Your task to perform on an android device: Find coffee shops on Maps Image 0: 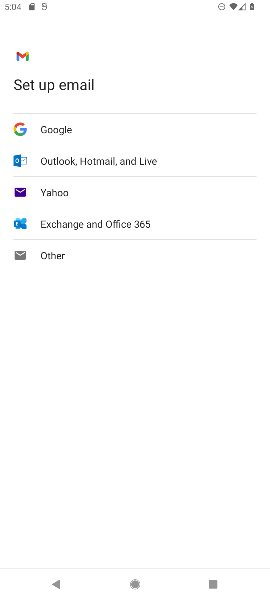
Step 0: press back button
Your task to perform on an android device: Find coffee shops on Maps Image 1: 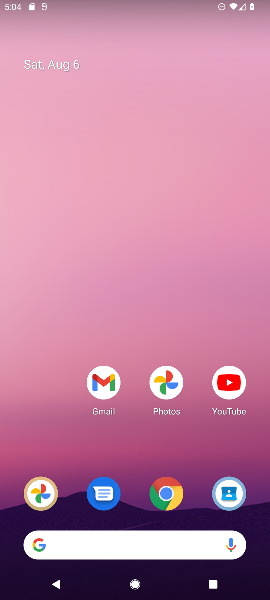
Step 1: press home button
Your task to perform on an android device: Find coffee shops on Maps Image 2: 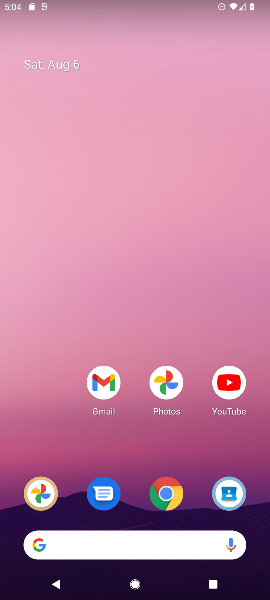
Step 2: press back button
Your task to perform on an android device: Find coffee shops on Maps Image 3: 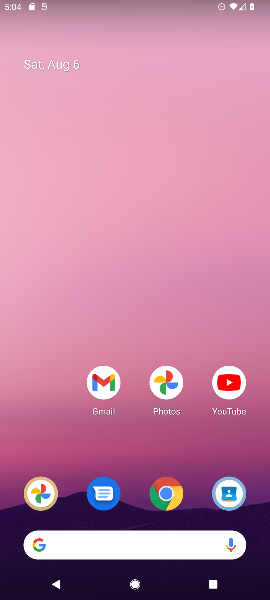
Step 3: drag from (178, 534) to (134, 281)
Your task to perform on an android device: Find coffee shops on Maps Image 4: 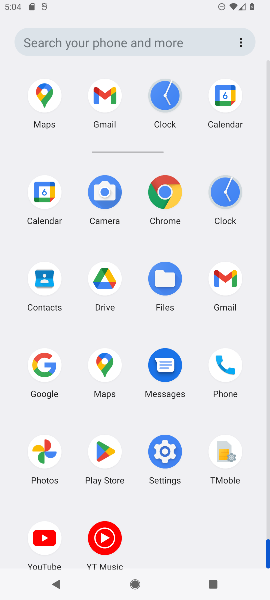
Step 4: click (99, 371)
Your task to perform on an android device: Find coffee shops on Maps Image 5: 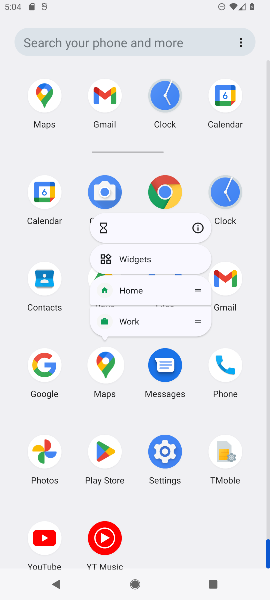
Step 5: click (100, 371)
Your task to perform on an android device: Find coffee shops on Maps Image 6: 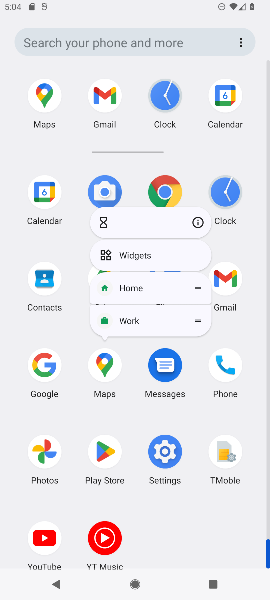
Step 6: click (100, 371)
Your task to perform on an android device: Find coffee shops on Maps Image 7: 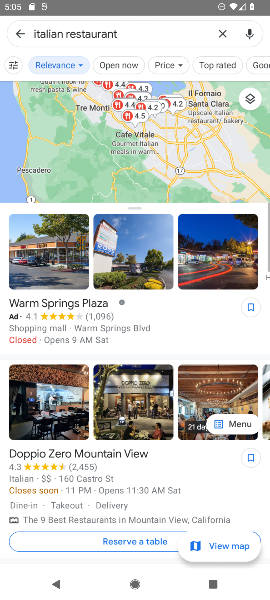
Step 7: click (100, 371)
Your task to perform on an android device: Find coffee shops on Maps Image 8: 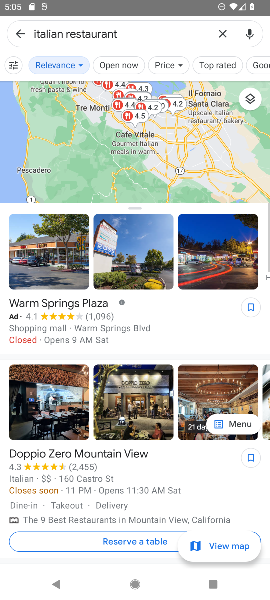
Step 8: click (15, 29)
Your task to perform on an android device: Find coffee shops on Maps Image 9: 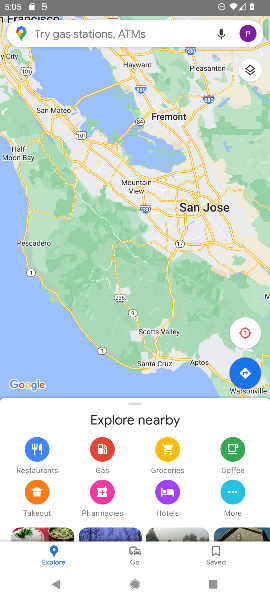
Step 9: click (88, 33)
Your task to perform on an android device: Find coffee shops on Maps Image 10: 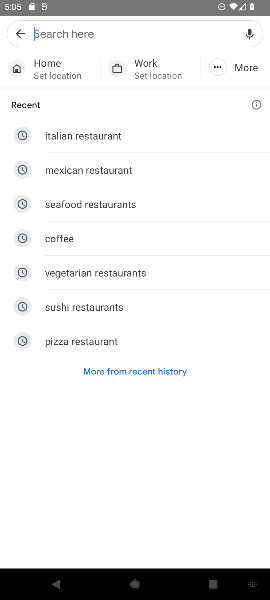
Step 10: click (23, 33)
Your task to perform on an android device: Find coffee shops on Maps Image 11: 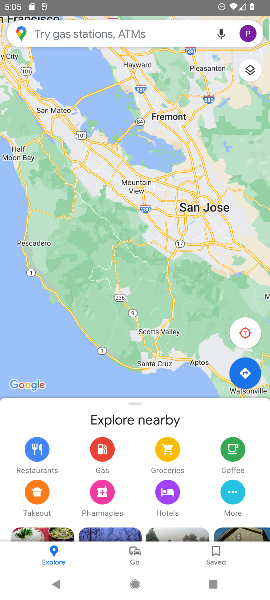
Step 11: press back button
Your task to perform on an android device: Find coffee shops on Maps Image 12: 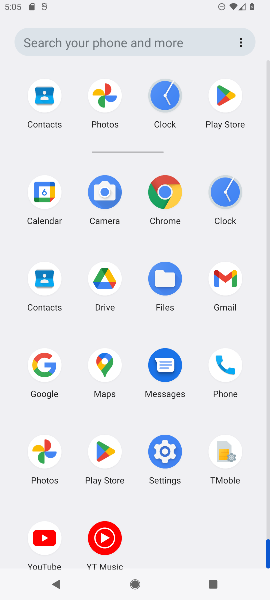
Step 12: click (104, 355)
Your task to perform on an android device: Find coffee shops on Maps Image 13: 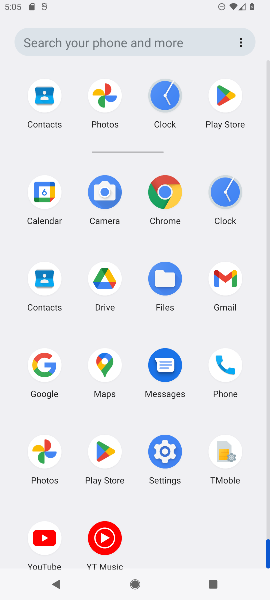
Step 13: click (104, 355)
Your task to perform on an android device: Find coffee shops on Maps Image 14: 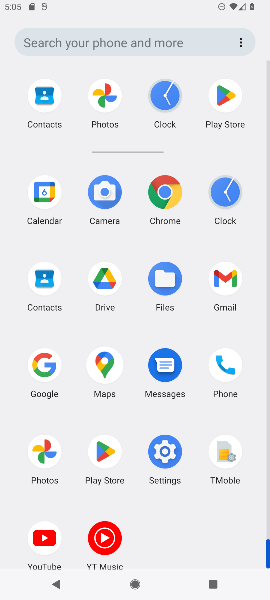
Step 14: click (106, 358)
Your task to perform on an android device: Find coffee shops on Maps Image 15: 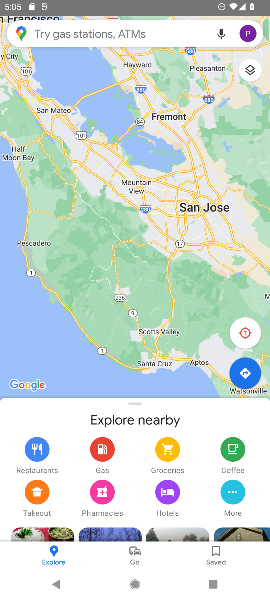
Step 15: click (47, 34)
Your task to perform on an android device: Find coffee shops on Maps Image 16: 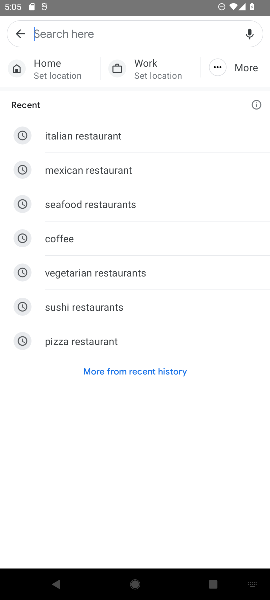
Step 16: click (60, 234)
Your task to perform on an android device: Find coffee shops on Maps Image 17: 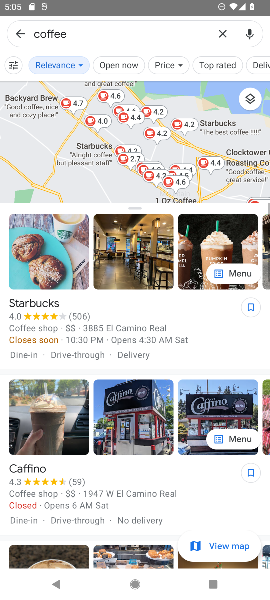
Step 17: task complete